Your task to perform on an android device: What's the weather going to be this weekend? Image 0: 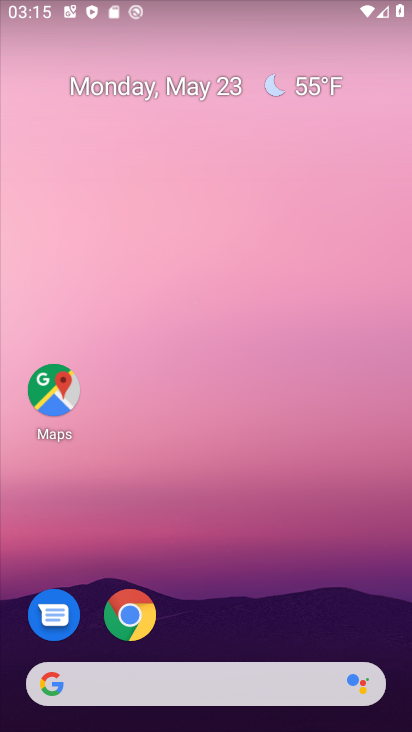
Step 0: click (281, 688)
Your task to perform on an android device: What's the weather going to be this weekend? Image 1: 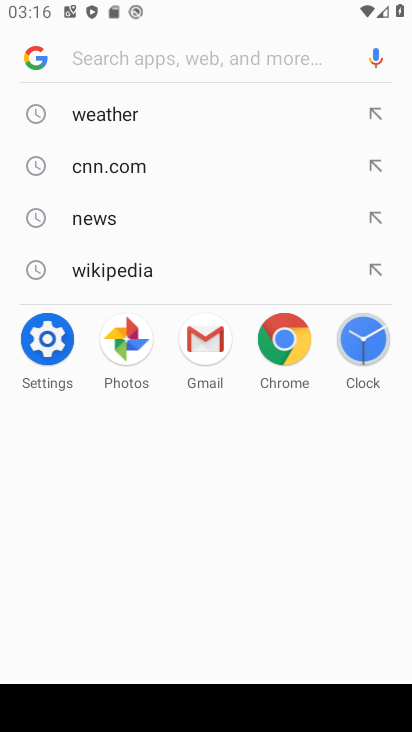
Step 1: click (156, 123)
Your task to perform on an android device: What's the weather going to be this weekend? Image 2: 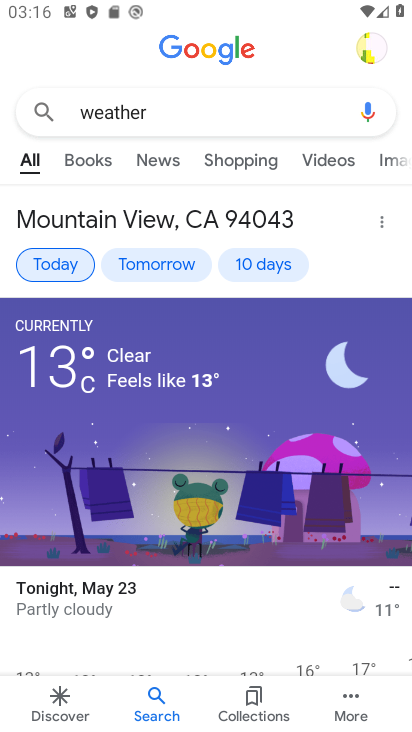
Step 2: click (245, 262)
Your task to perform on an android device: What's the weather going to be this weekend? Image 3: 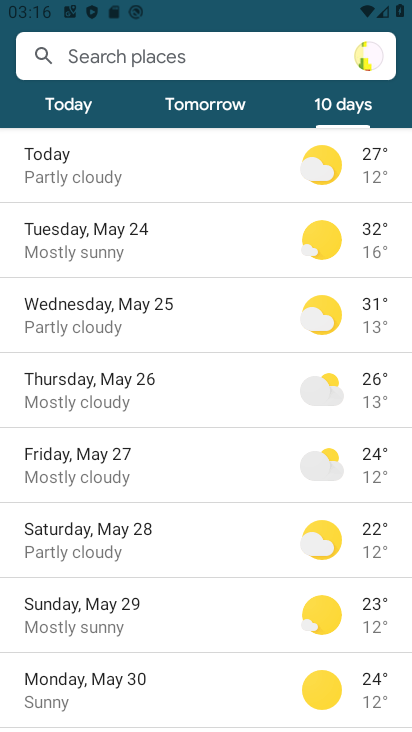
Step 3: task complete